Your task to perform on an android device: check google app version Image 0: 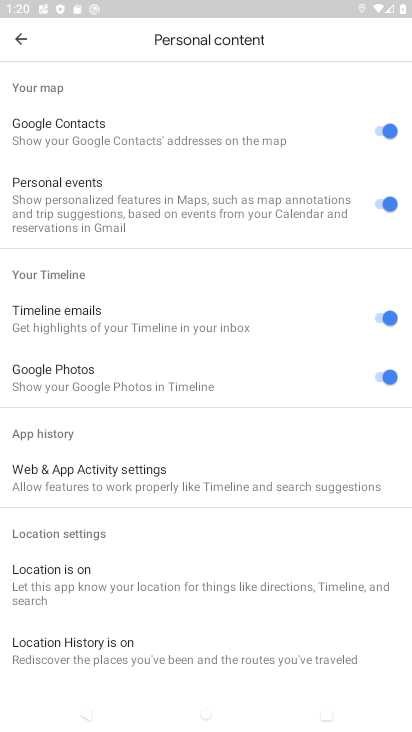
Step 0: press home button
Your task to perform on an android device: check google app version Image 1: 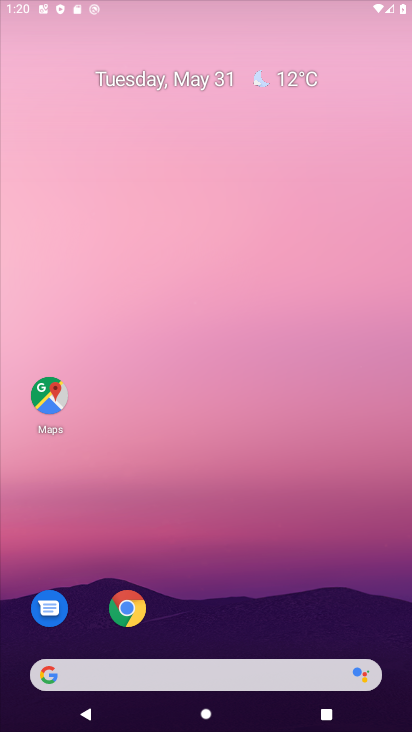
Step 1: drag from (309, 585) to (318, 138)
Your task to perform on an android device: check google app version Image 2: 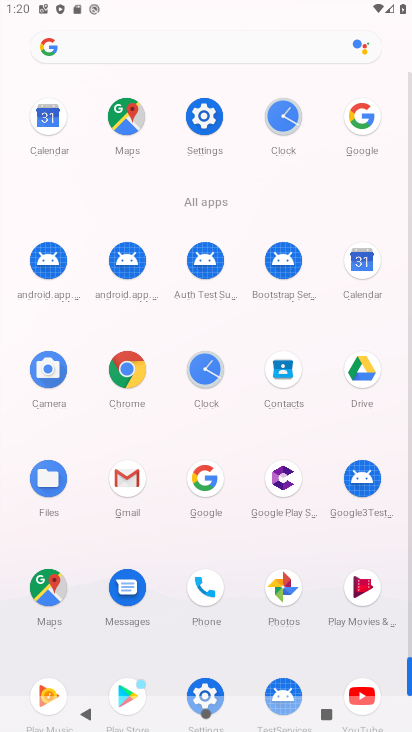
Step 2: click (212, 482)
Your task to perform on an android device: check google app version Image 3: 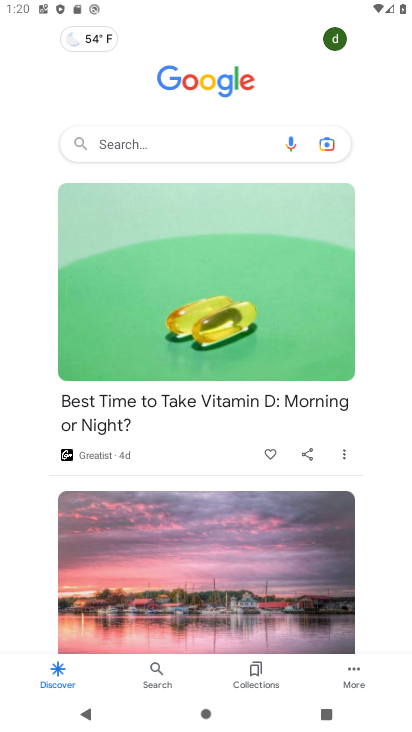
Step 3: click (367, 681)
Your task to perform on an android device: check google app version Image 4: 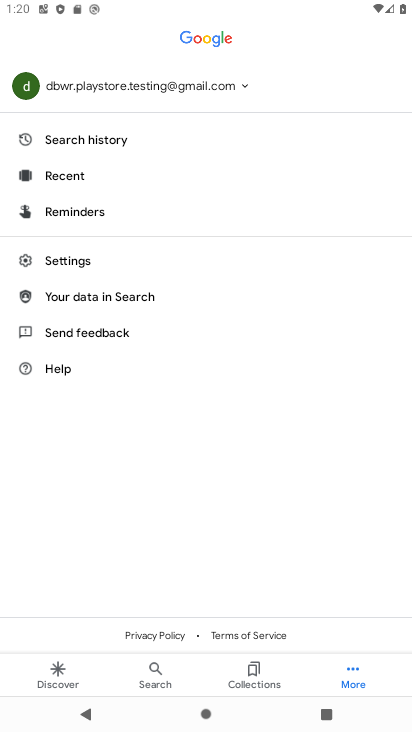
Step 4: click (112, 262)
Your task to perform on an android device: check google app version Image 5: 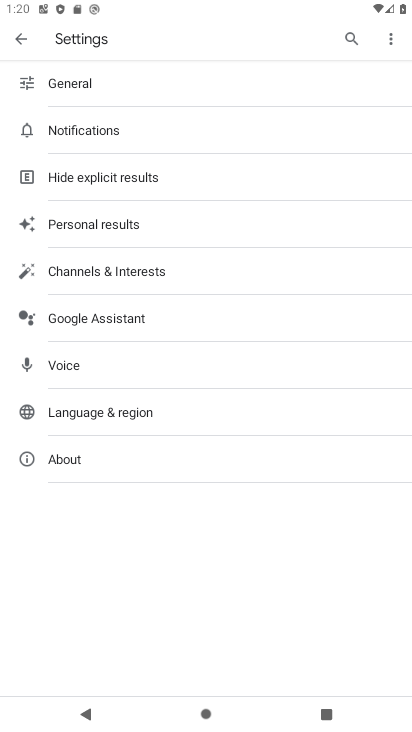
Step 5: click (97, 469)
Your task to perform on an android device: check google app version Image 6: 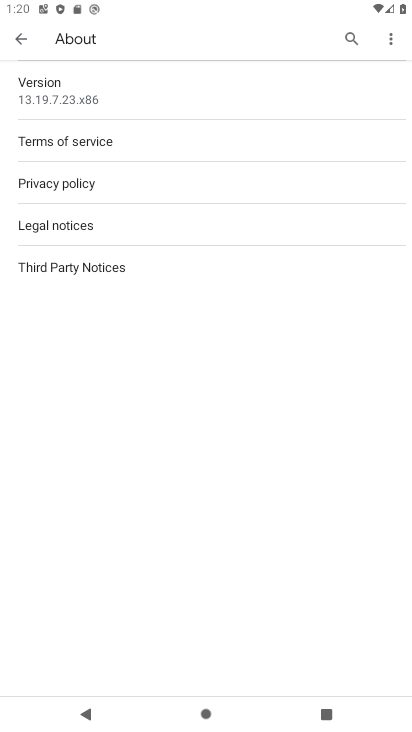
Step 6: task complete